Your task to perform on an android device: Open Youtube and go to the subscriptions tab Image 0: 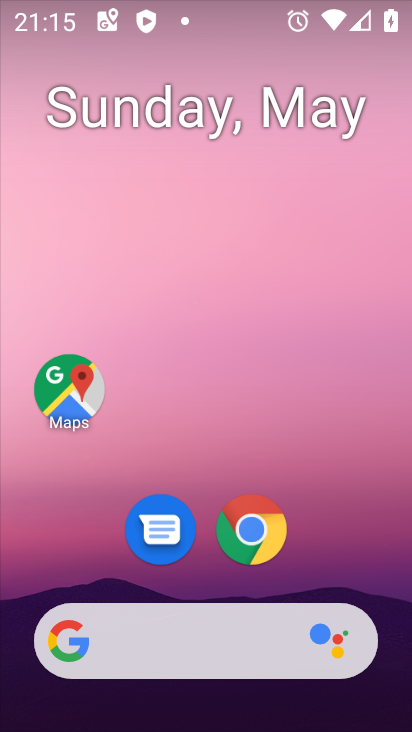
Step 0: drag from (369, 589) to (367, 1)
Your task to perform on an android device: Open Youtube and go to the subscriptions tab Image 1: 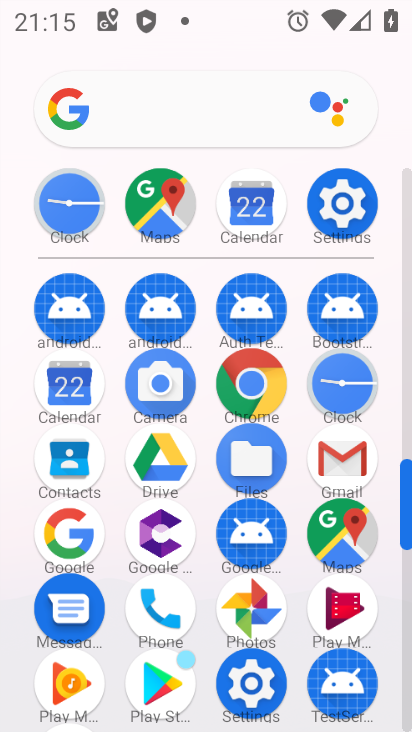
Step 1: drag from (408, 526) to (405, 459)
Your task to perform on an android device: Open Youtube and go to the subscriptions tab Image 2: 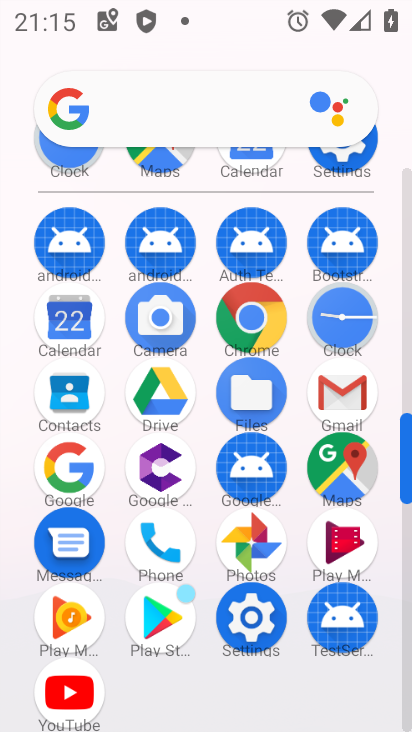
Step 2: click (50, 684)
Your task to perform on an android device: Open Youtube and go to the subscriptions tab Image 3: 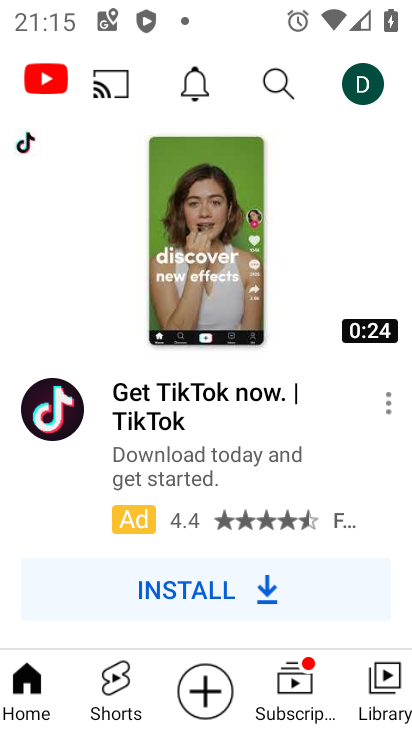
Step 3: click (291, 696)
Your task to perform on an android device: Open Youtube and go to the subscriptions tab Image 4: 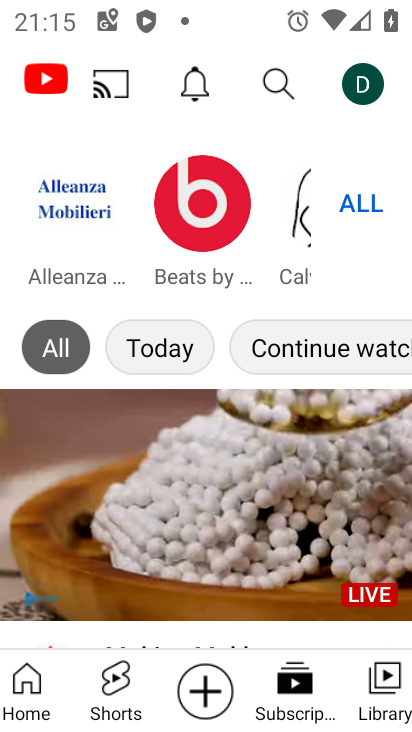
Step 4: task complete